Your task to perform on an android device: turn on priority inbox in the gmail app Image 0: 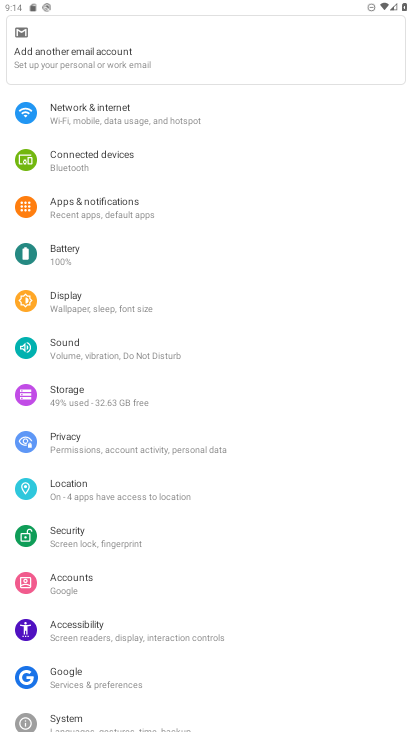
Step 0: press home button
Your task to perform on an android device: turn on priority inbox in the gmail app Image 1: 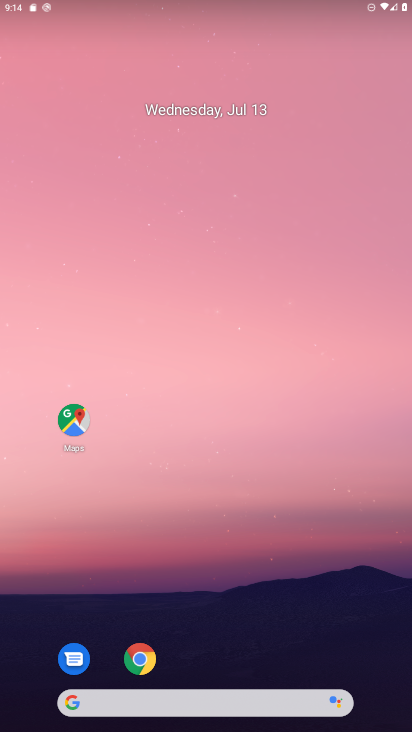
Step 1: drag from (229, 644) to (314, 137)
Your task to perform on an android device: turn on priority inbox in the gmail app Image 2: 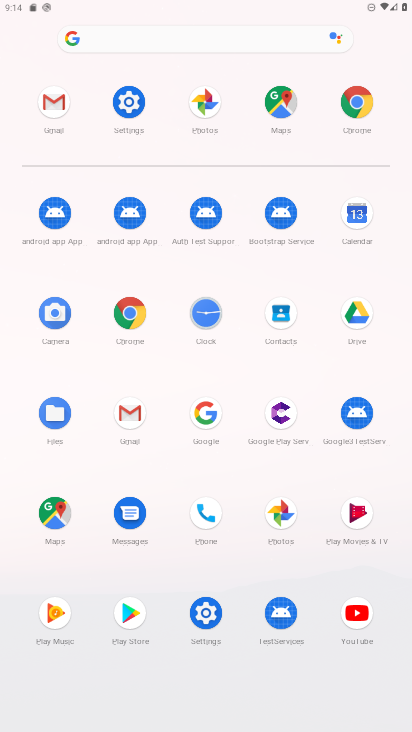
Step 2: click (51, 100)
Your task to perform on an android device: turn on priority inbox in the gmail app Image 3: 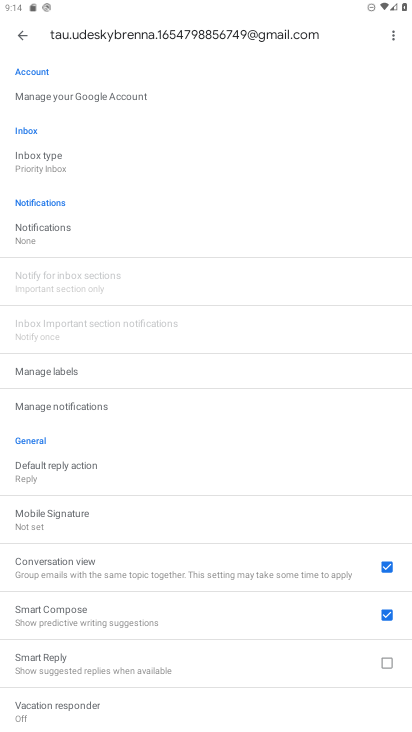
Step 3: task complete